Your task to perform on an android device: check the backup settings in the google photos Image 0: 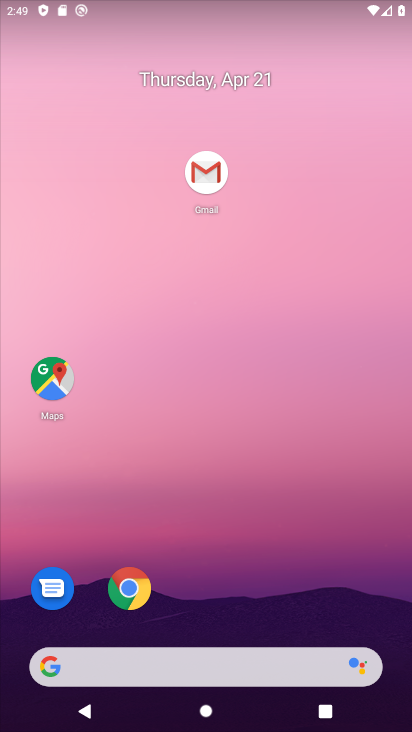
Step 0: drag from (245, 580) to (208, 73)
Your task to perform on an android device: check the backup settings in the google photos Image 1: 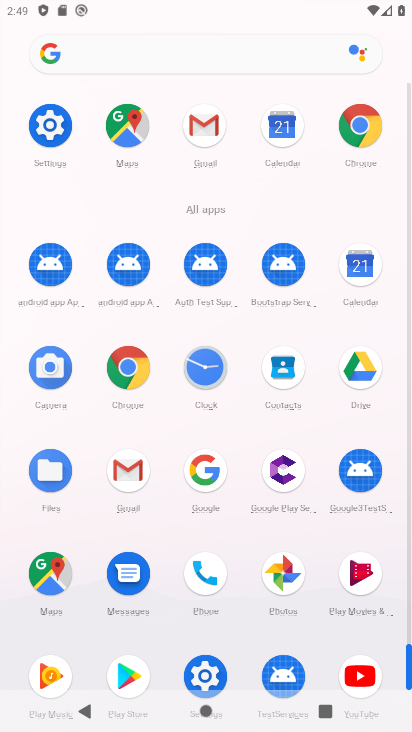
Step 1: click (271, 582)
Your task to perform on an android device: check the backup settings in the google photos Image 2: 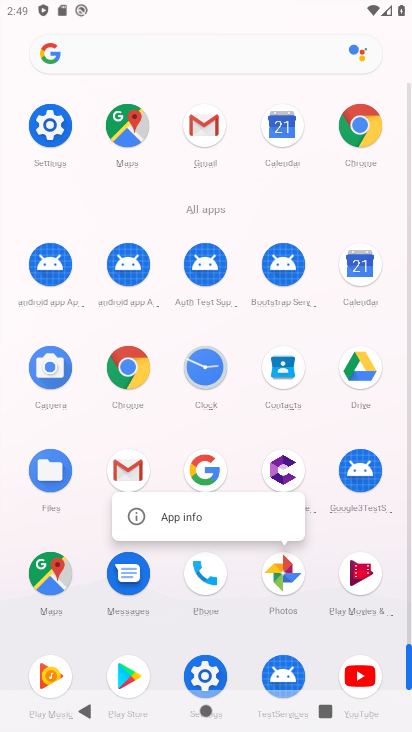
Step 2: click (292, 592)
Your task to perform on an android device: check the backup settings in the google photos Image 3: 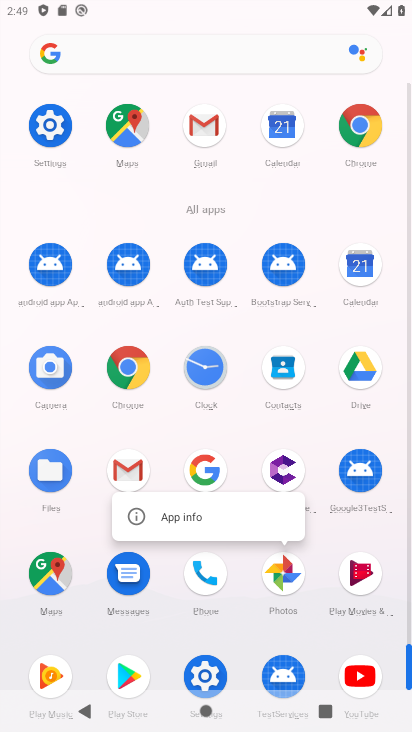
Step 3: click (279, 584)
Your task to perform on an android device: check the backup settings in the google photos Image 4: 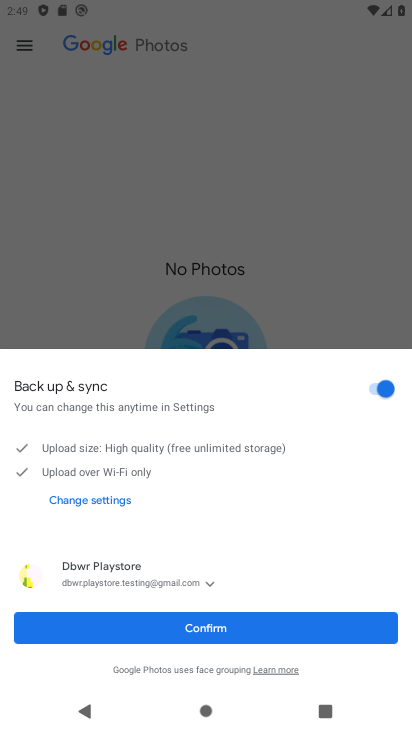
Step 4: click (289, 626)
Your task to perform on an android device: check the backup settings in the google photos Image 5: 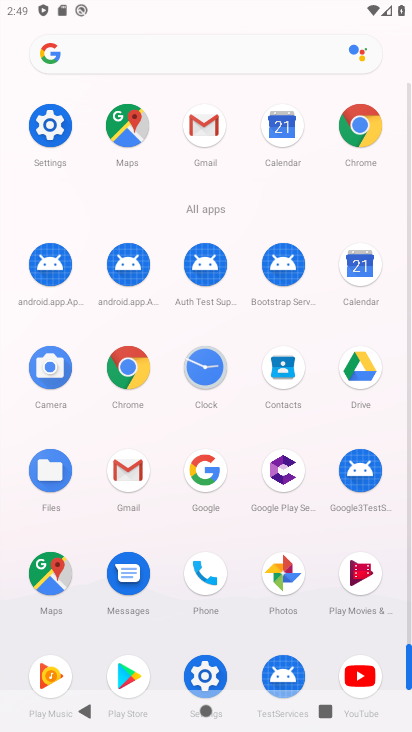
Step 5: click (281, 582)
Your task to perform on an android device: check the backup settings in the google photos Image 6: 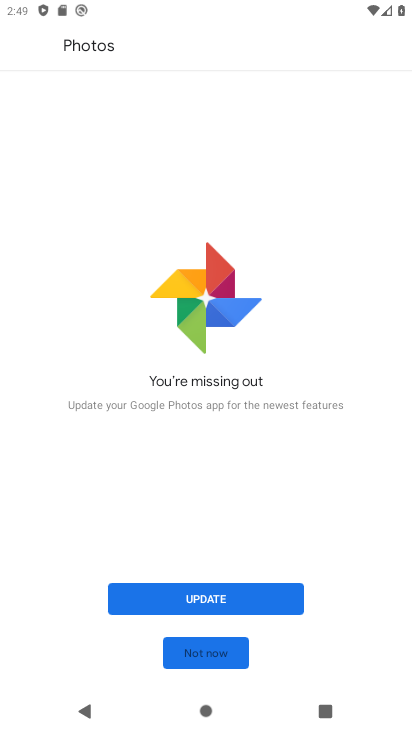
Step 6: click (168, 603)
Your task to perform on an android device: check the backup settings in the google photos Image 7: 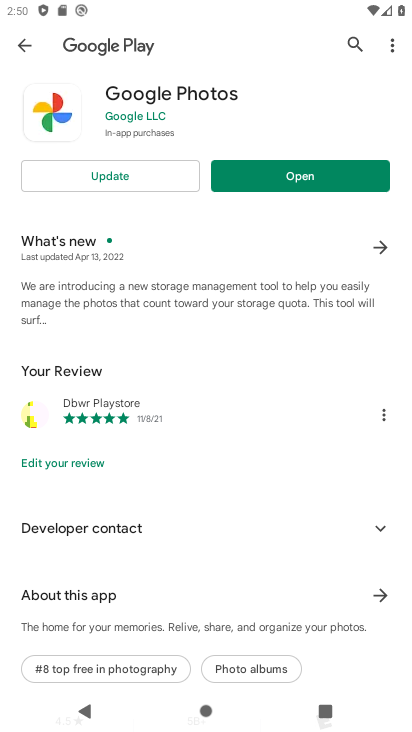
Step 7: click (142, 179)
Your task to perform on an android device: check the backup settings in the google photos Image 8: 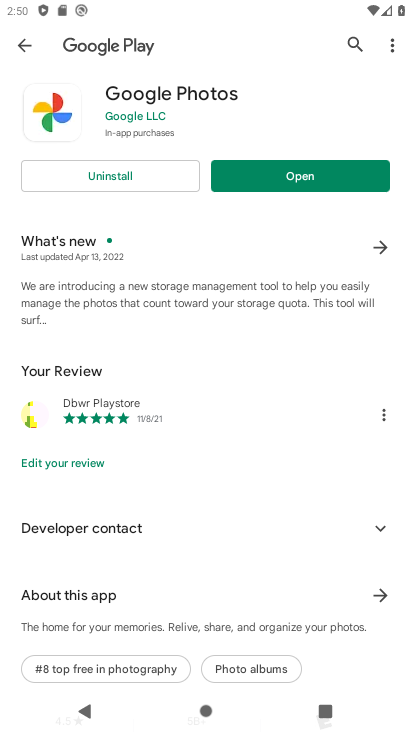
Step 8: click (296, 180)
Your task to perform on an android device: check the backup settings in the google photos Image 9: 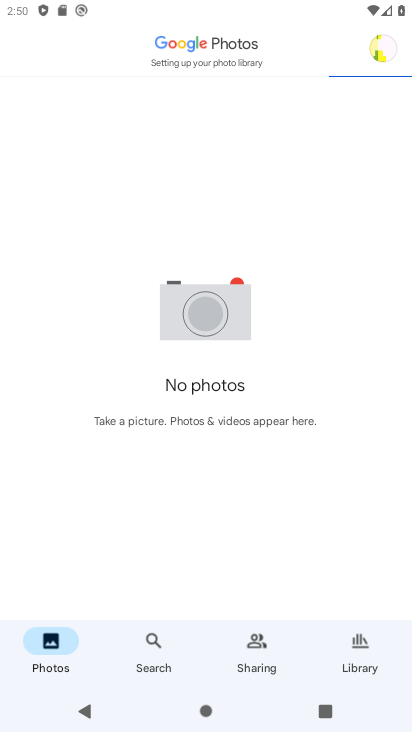
Step 9: click (374, 61)
Your task to perform on an android device: check the backup settings in the google photos Image 10: 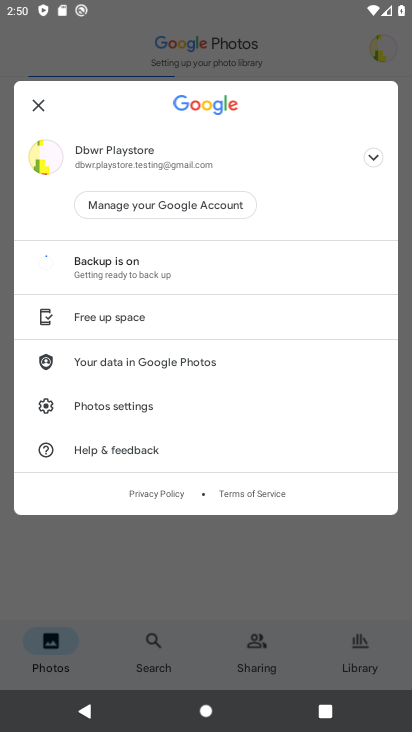
Step 10: click (118, 414)
Your task to perform on an android device: check the backup settings in the google photos Image 11: 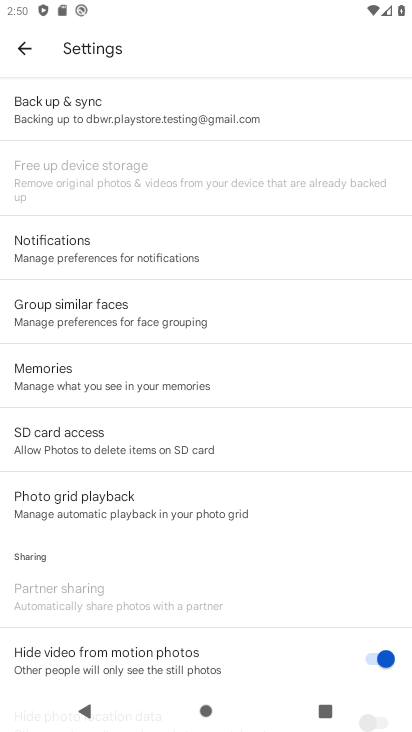
Step 11: click (99, 109)
Your task to perform on an android device: check the backup settings in the google photos Image 12: 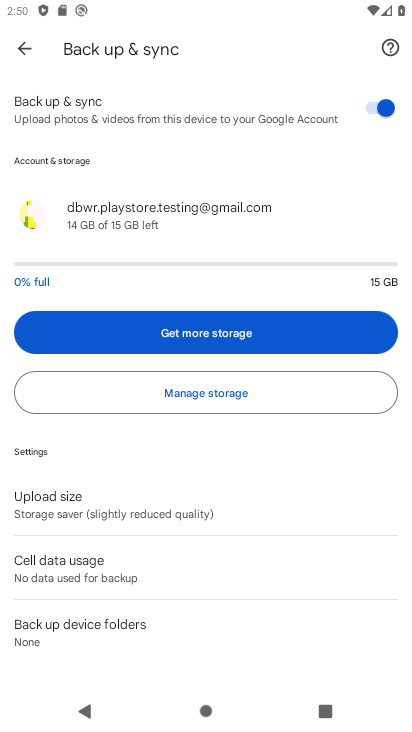
Step 12: task complete